Your task to perform on an android device: turn off javascript in the chrome app Image 0: 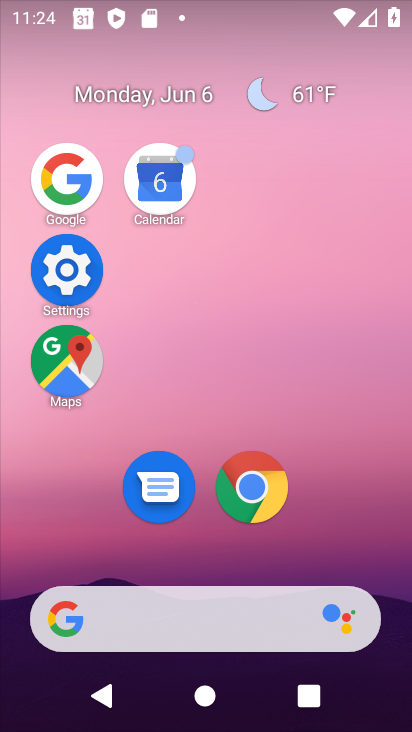
Step 0: click (268, 499)
Your task to perform on an android device: turn off javascript in the chrome app Image 1: 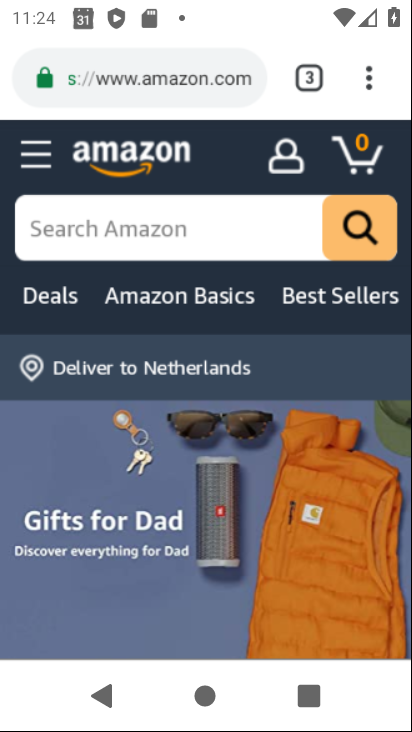
Step 1: click (370, 65)
Your task to perform on an android device: turn off javascript in the chrome app Image 2: 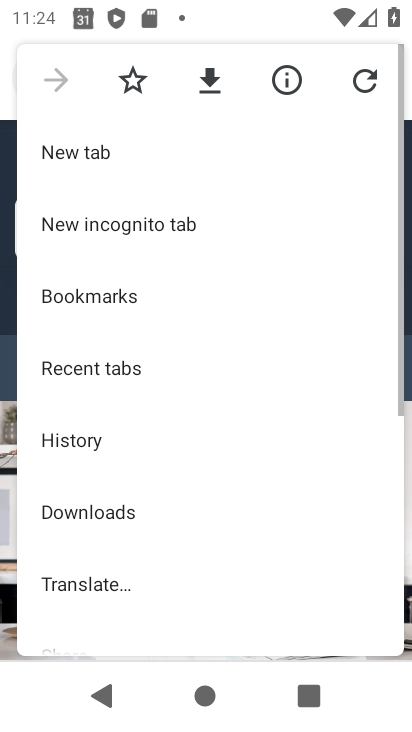
Step 2: drag from (244, 504) to (263, 158)
Your task to perform on an android device: turn off javascript in the chrome app Image 3: 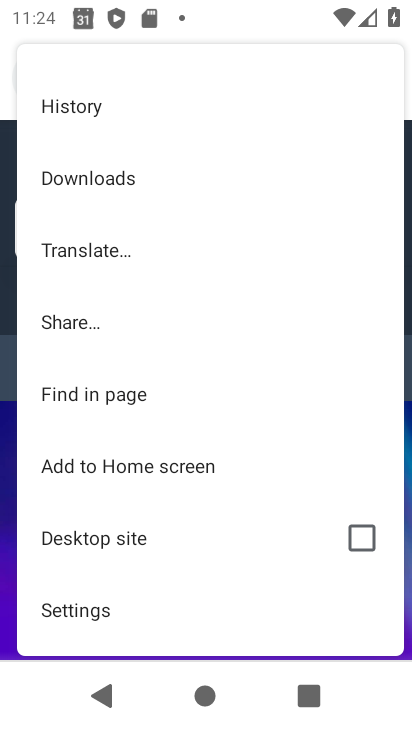
Step 3: click (94, 602)
Your task to perform on an android device: turn off javascript in the chrome app Image 4: 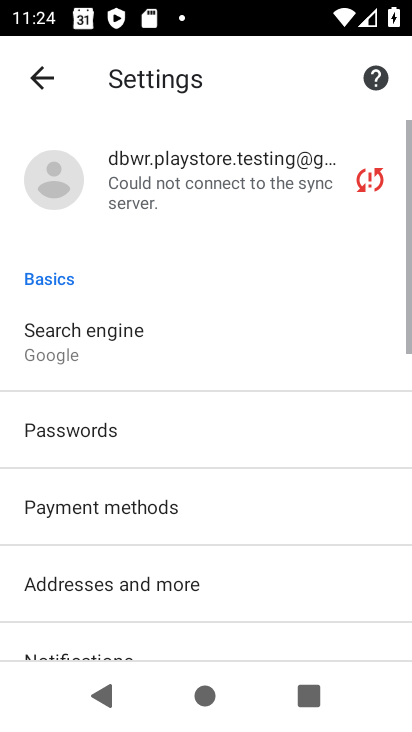
Step 4: drag from (249, 561) to (245, 222)
Your task to perform on an android device: turn off javascript in the chrome app Image 5: 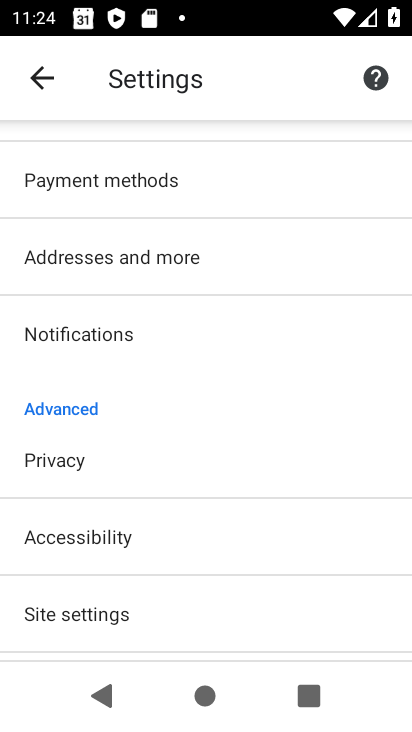
Step 5: click (192, 606)
Your task to perform on an android device: turn off javascript in the chrome app Image 6: 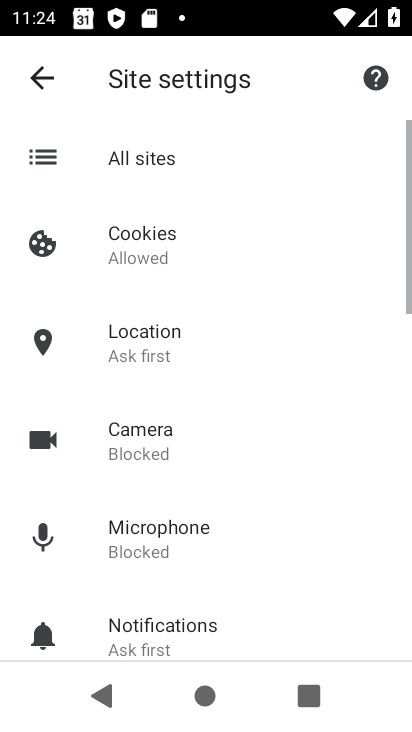
Step 6: drag from (301, 450) to (276, 132)
Your task to perform on an android device: turn off javascript in the chrome app Image 7: 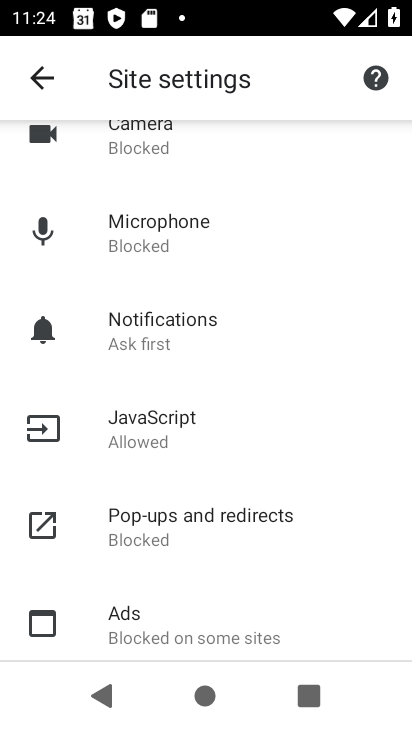
Step 7: click (243, 454)
Your task to perform on an android device: turn off javascript in the chrome app Image 8: 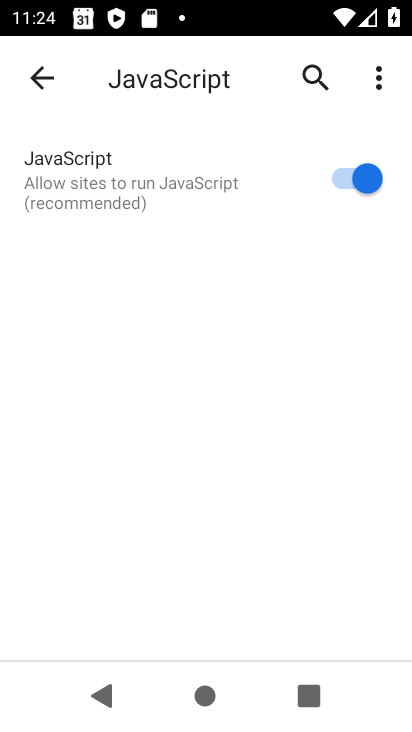
Step 8: click (335, 184)
Your task to perform on an android device: turn off javascript in the chrome app Image 9: 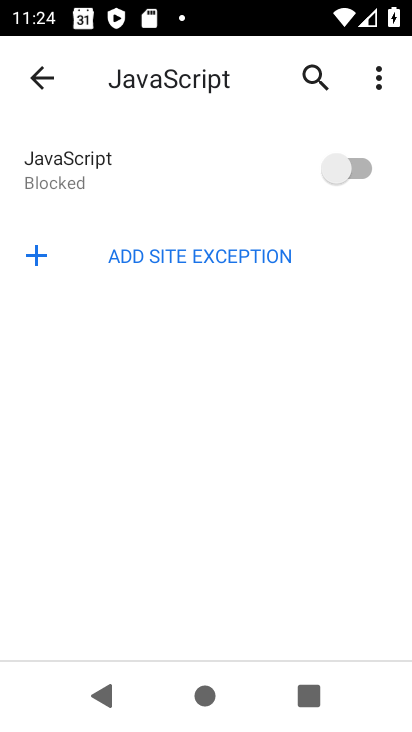
Step 9: task complete